Your task to perform on an android device: Check the weather Image 0: 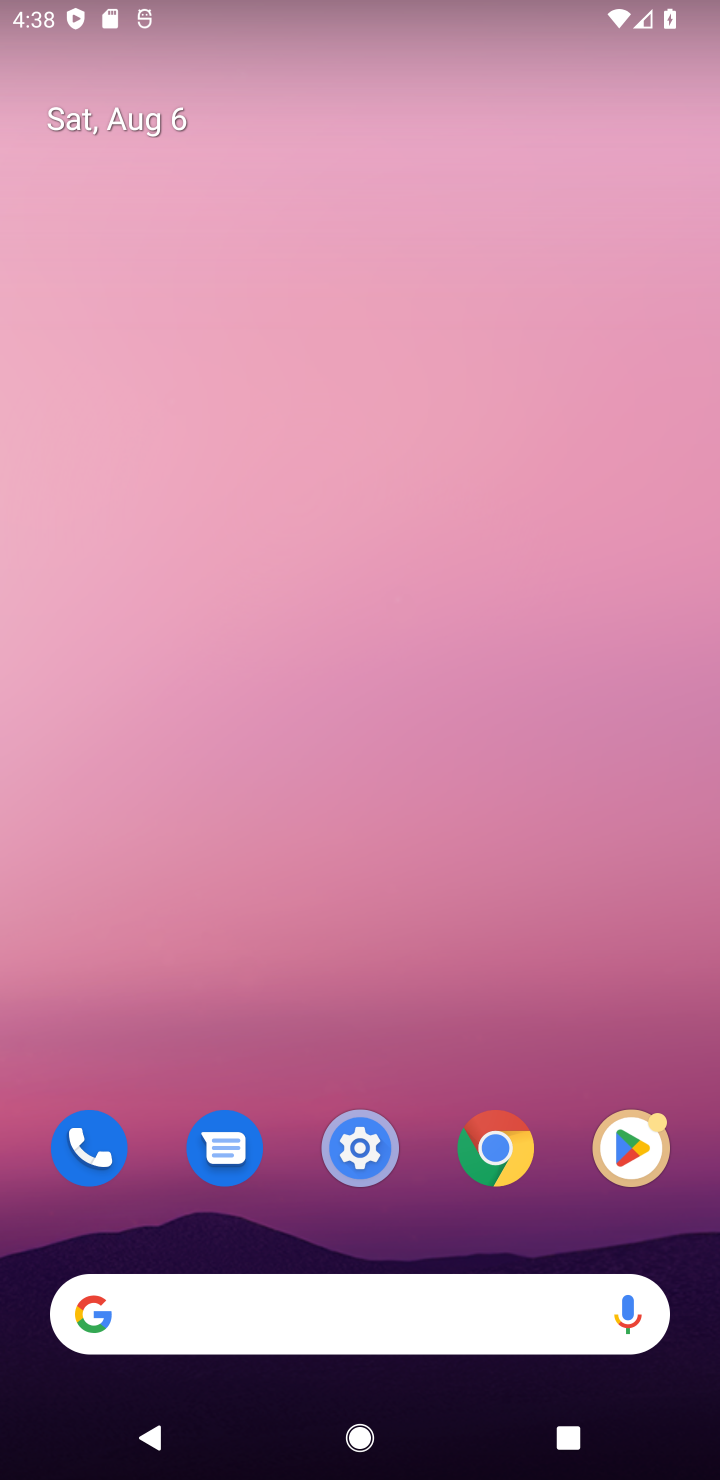
Step 0: click (377, 1265)
Your task to perform on an android device: Check the weather Image 1: 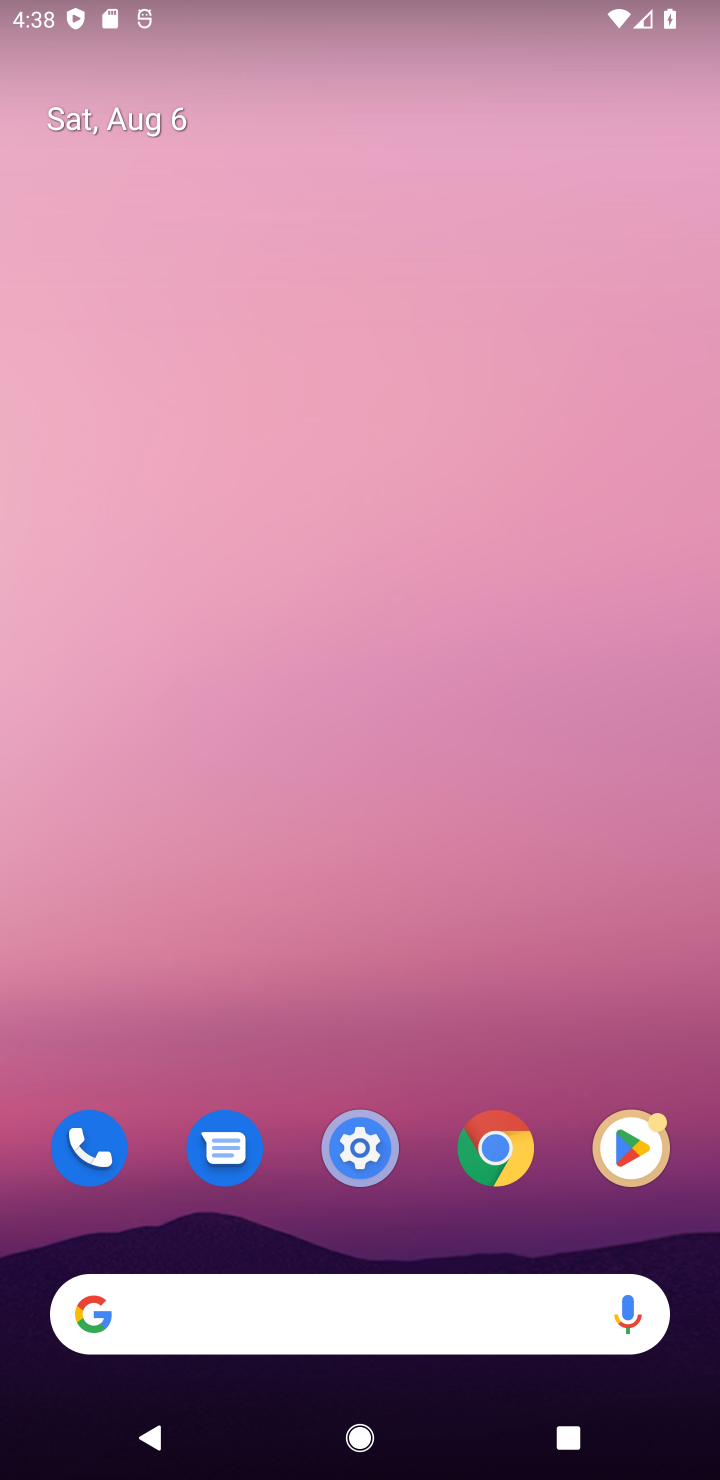
Step 1: click (390, 1293)
Your task to perform on an android device: Check the weather Image 2: 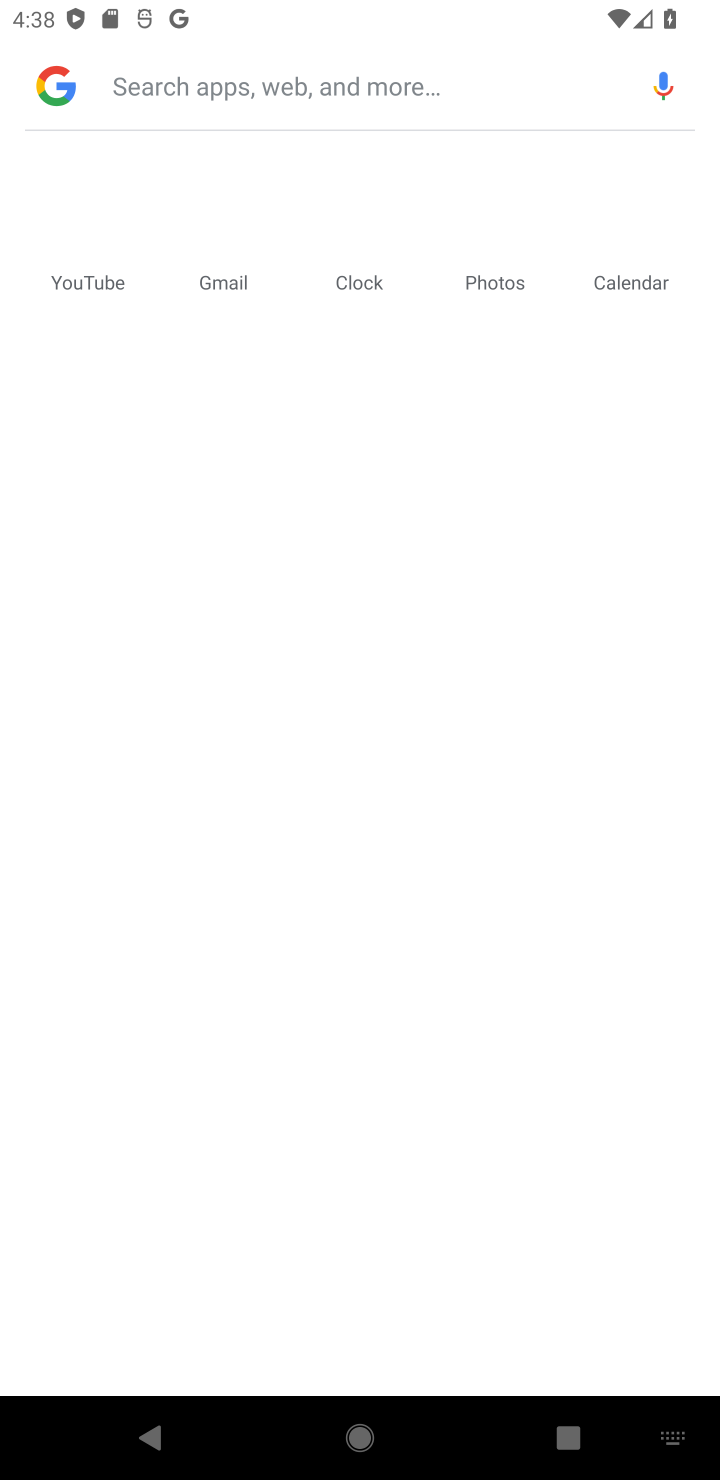
Step 2: type "weather"
Your task to perform on an android device: Check the weather Image 3: 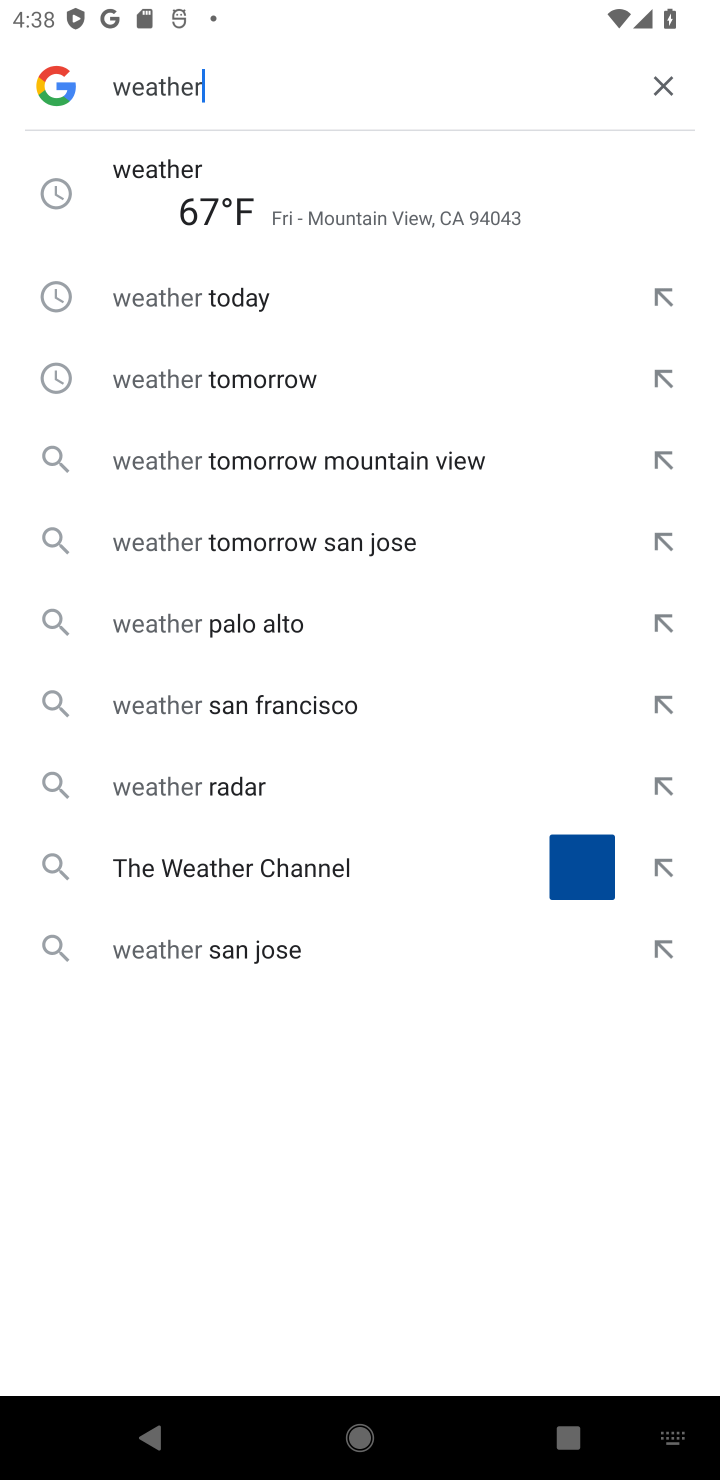
Step 3: task complete